Your task to perform on an android device: Go to sound settings Image 0: 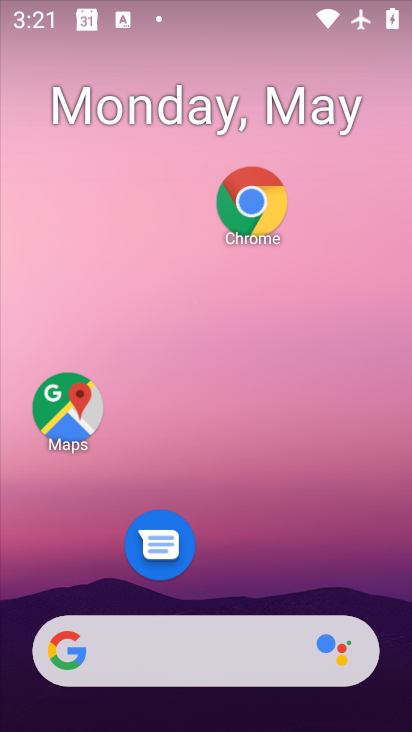
Step 0: drag from (251, 587) to (239, 187)
Your task to perform on an android device: Go to sound settings Image 1: 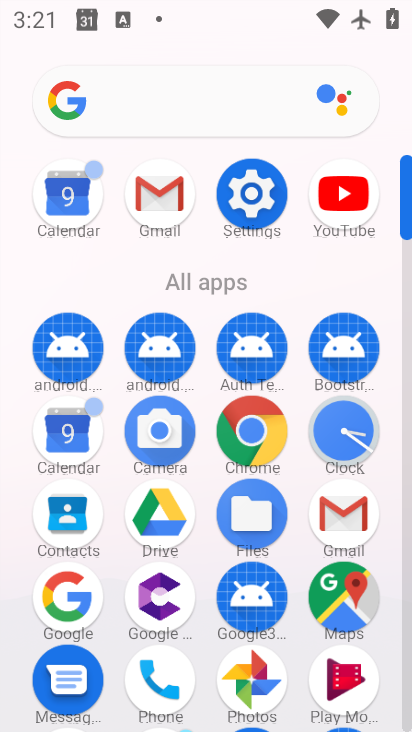
Step 1: click (239, 183)
Your task to perform on an android device: Go to sound settings Image 2: 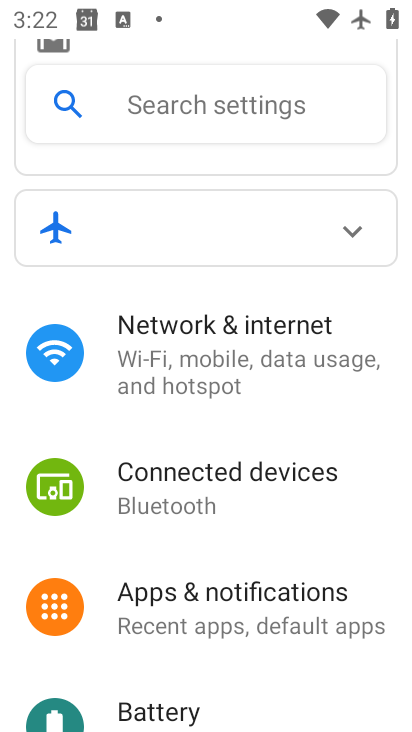
Step 2: drag from (221, 647) to (243, 288)
Your task to perform on an android device: Go to sound settings Image 3: 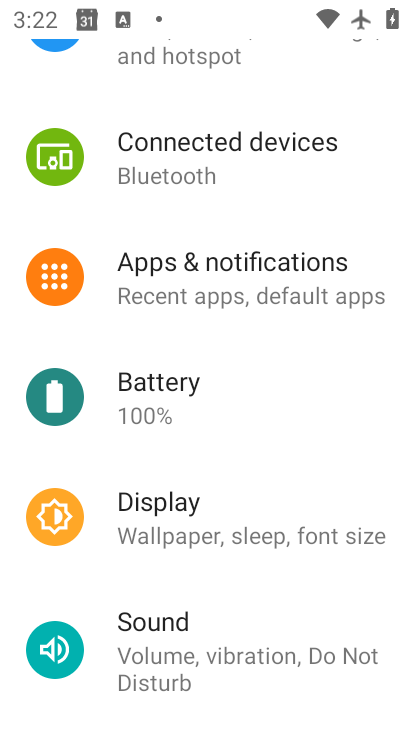
Step 3: drag from (251, 555) to (257, 397)
Your task to perform on an android device: Go to sound settings Image 4: 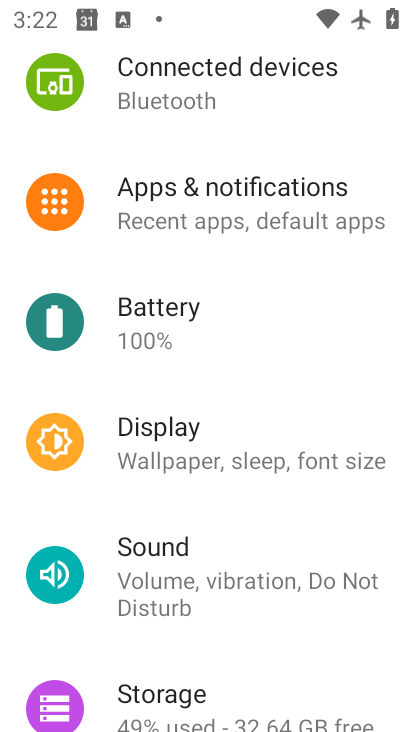
Step 4: click (203, 531)
Your task to perform on an android device: Go to sound settings Image 5: 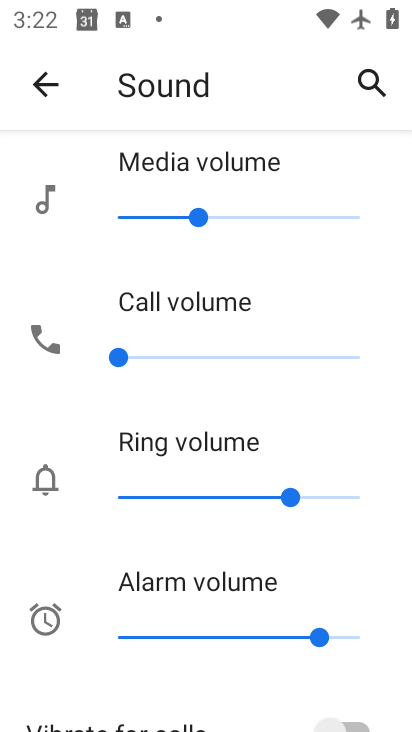
Step 5: task complete